Your task to perform on an android device: search for starred emails in the gmail app Image 0: 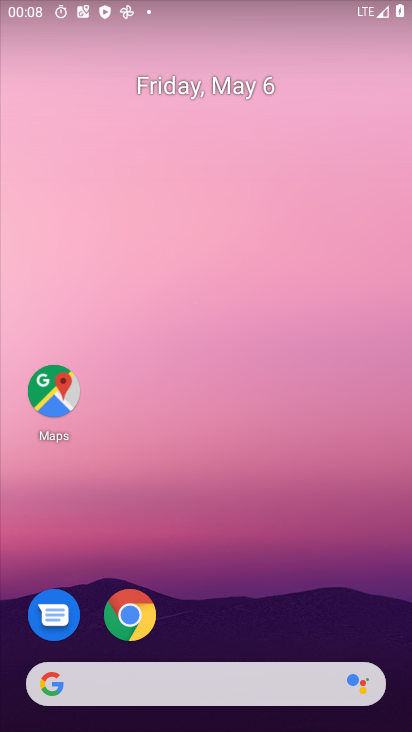
Step 0: drag from (234, 607) to (300, 61)
Your task to perform on an android device: search for starred emails in the gmail app Image 1: 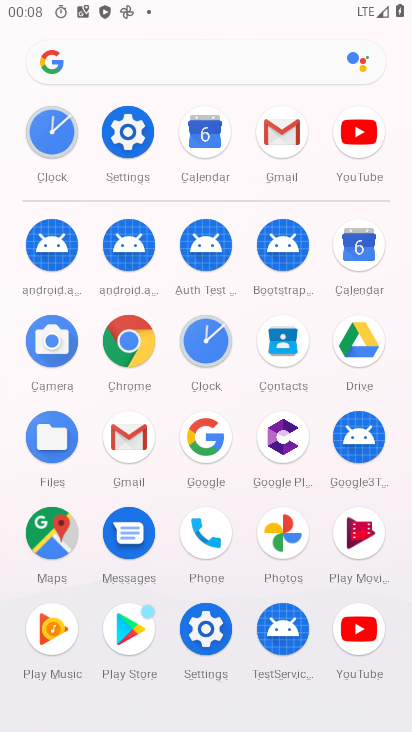
Step 1: click (128, 437)
Your task to perform on an android device: search for starred emails in the gmail app Image 2: 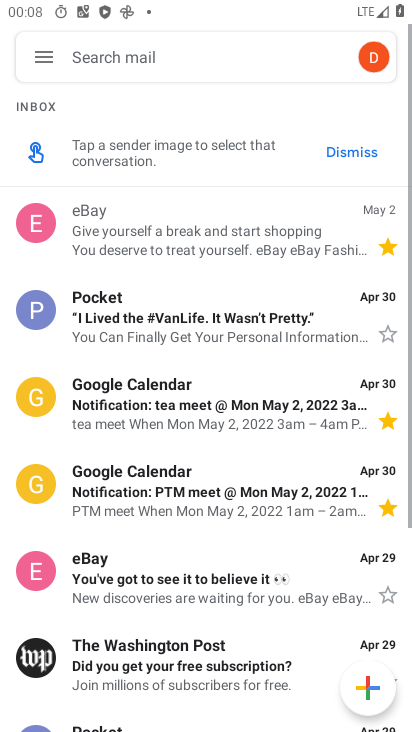
Step 2: click (44, 60)
Your task to perform on an android device: search for starred emails in the gmail app Image 3: 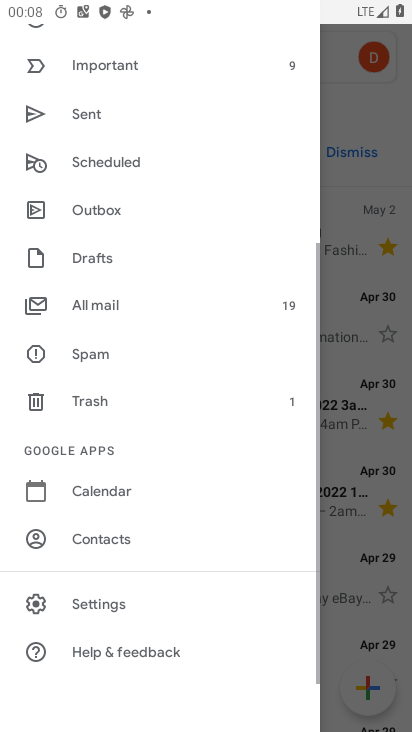
Step 3: drag from (196, 169) to (223, 446)
Your task to perform on an android device: search for starred emails in the gmail app Image 4: 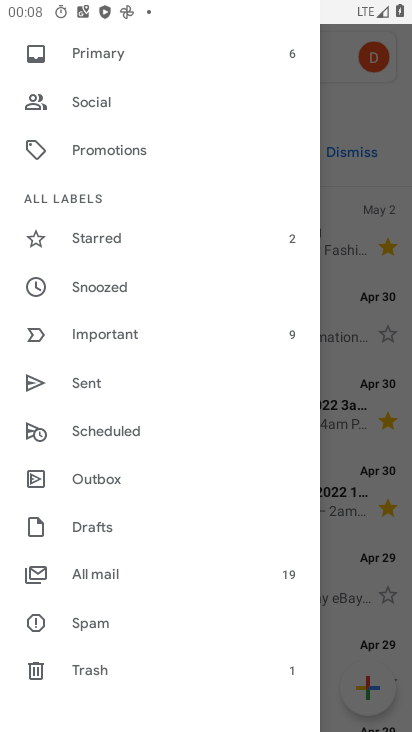
Step 4: click (110, 241)
Your task to perform on an android device: search for starred emails in the gmail app Image 5: 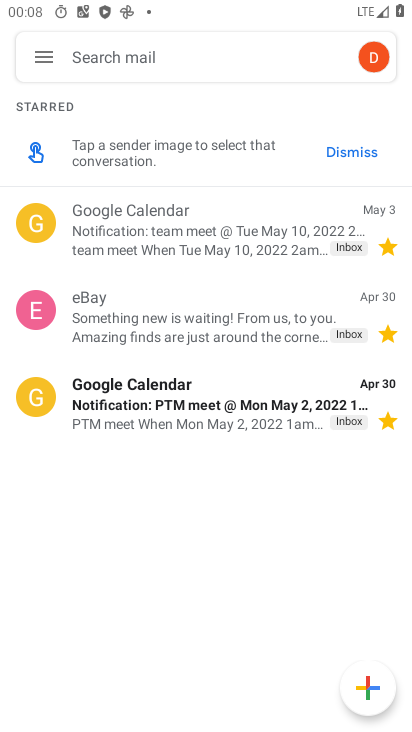
Step 5: task complete